Your task to perform on an android device: Search for pizza restaurants on Maps Image 0: 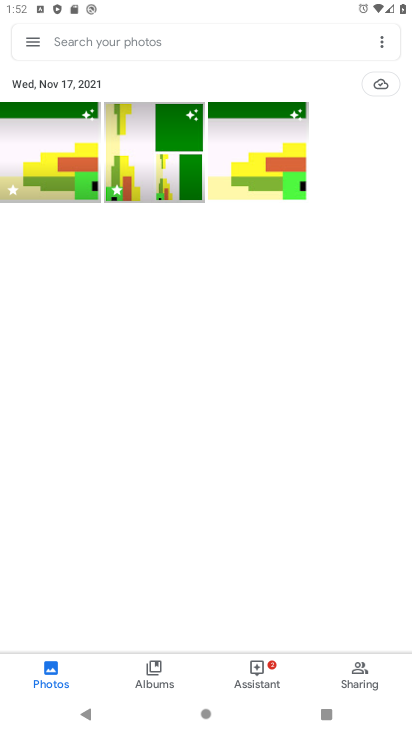
Step 0: press home button
Your task to perform on an android device: Search for pizza restaurants on Maps Image 1: 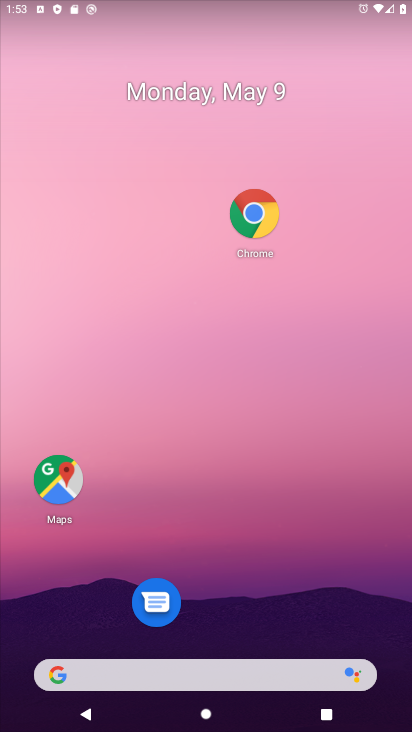
Step 1: click (44, 475)
Your task to perform on an android device: Search for pizza restaurants on Maps Image 2: 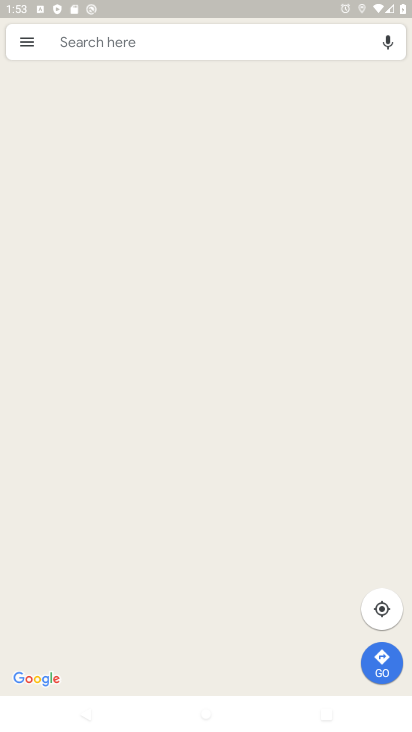
Step 2: click (235, 49)
Your task to perform on an android device: Search for pizza restaurants on Maps Image 3: 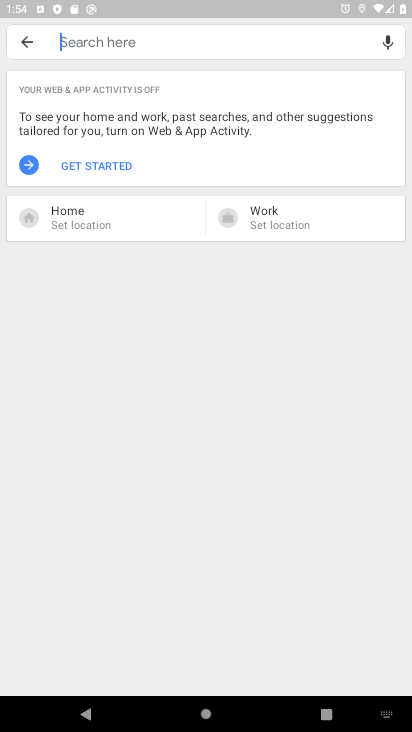
Step 3: type "pizza"
Your task to perform on an android device: Search for pizza restaurants on Maps Image 4: 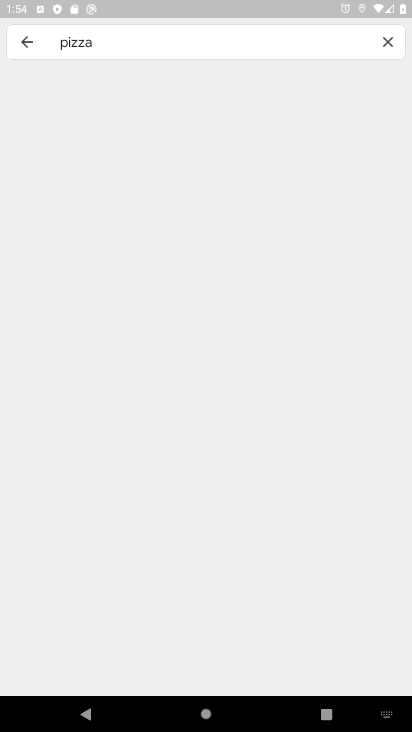
Step 4: task complete